Your task to perform on an android device: Toggle the flashlight Image 0: 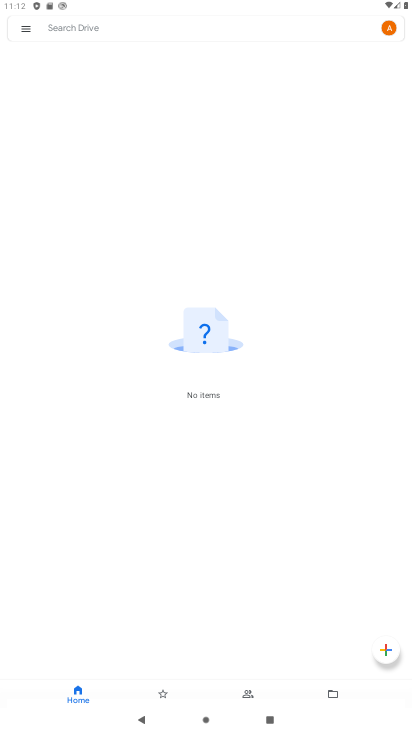
Step 0: press home button
Your task to perform on an android device: Toggle the flashlight Image 1: 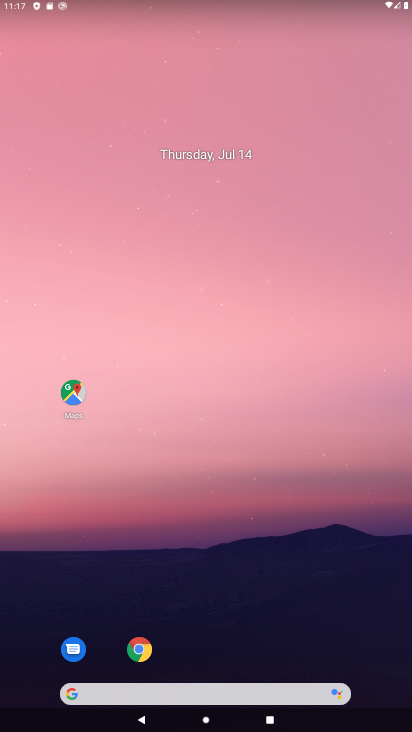
Step 1: drag from (204, 641) to (274, 66)
Your task to perform on an android device: Toggle the flashlight Image 2: 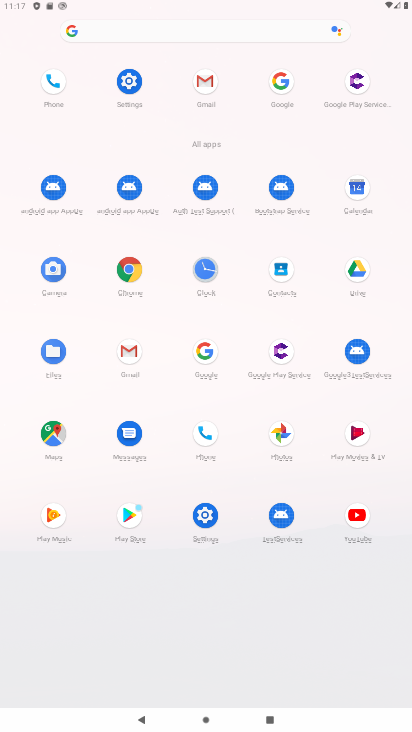
Step 2: click (125, 82)
Your task to perform on an android device: Toggle the flashlight Image 3: 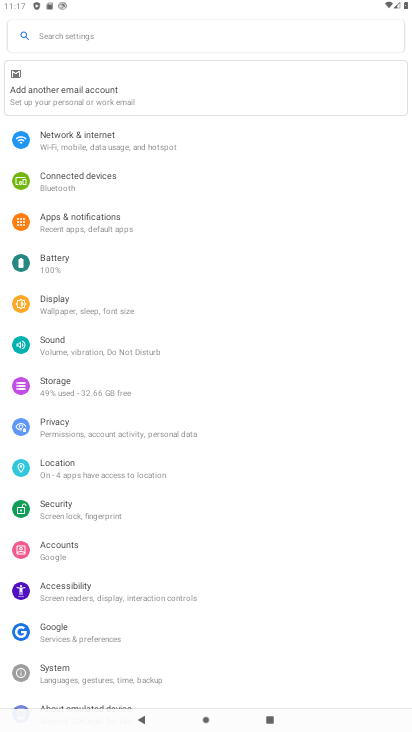
Step 3: task complete